Your task to perform on an android device: Open Wikipedia Image 0: 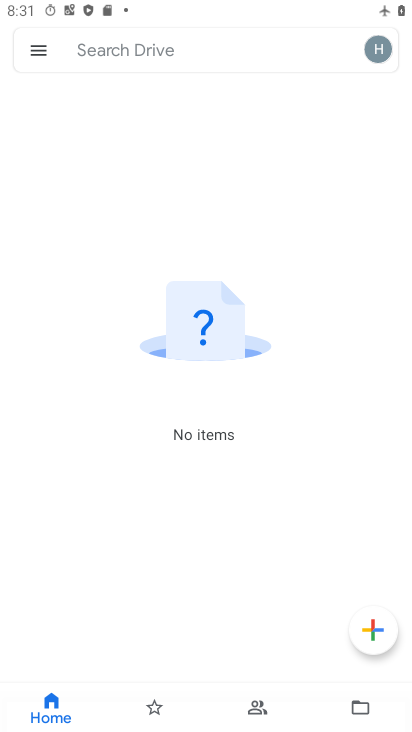
Step 0: press home button
Your task to perform on an android device: Open Wikipedia Image 1: 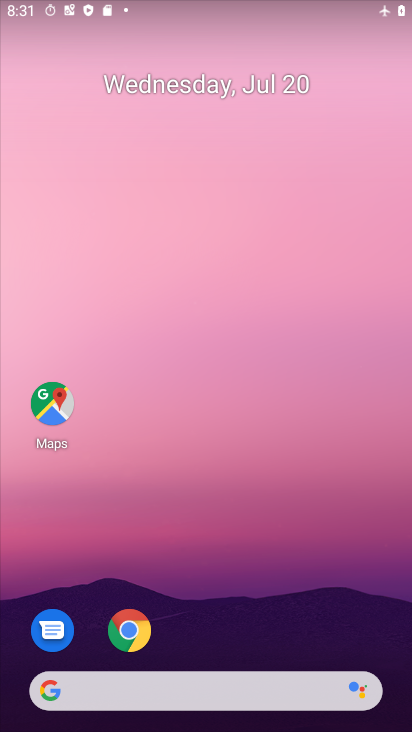
Step 1: drag from (263, 544) to (309, 219)
Your task to perform on an android device: Open Wikipedia Image 2: 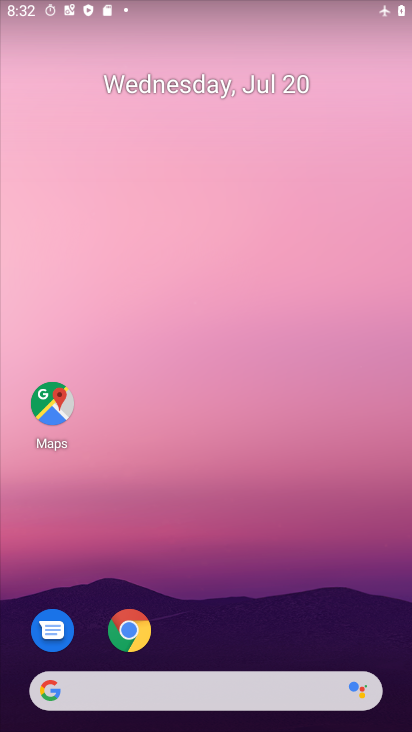
Step 2: drag from (261, 514) to (276, 212)
Your task to perform on an android device: Open Wikipedia Image 3: 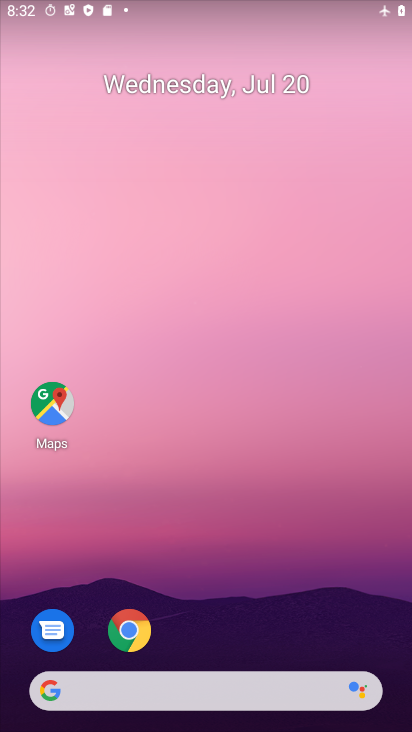
Step 3: drag from (208, 634) to (228, 262)
Your task to perform on an android device: Open Wikipedia Image 4: 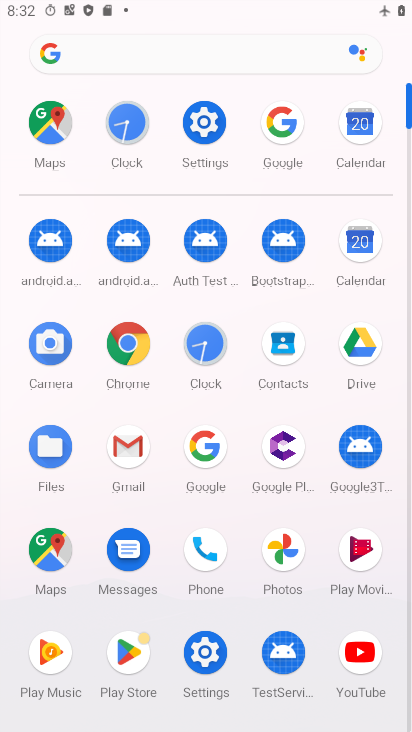
Step 4: click (132, 353)
Your task to perform on an android device: Open Wikipedia Image 5: 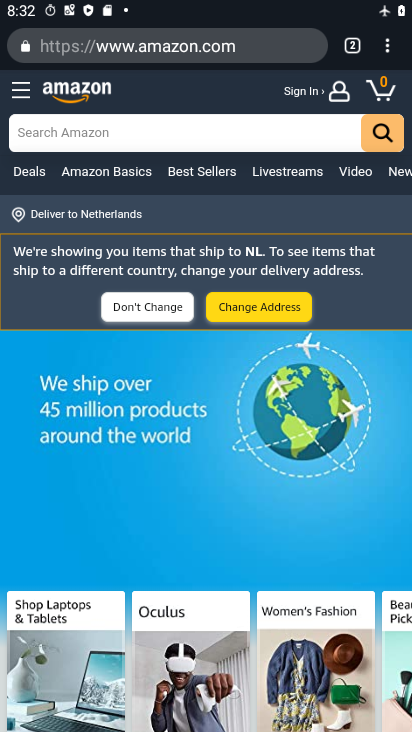
Step 5: click (232, 48)
Your task to perform on an android device: Open Wikipedia Image 6: 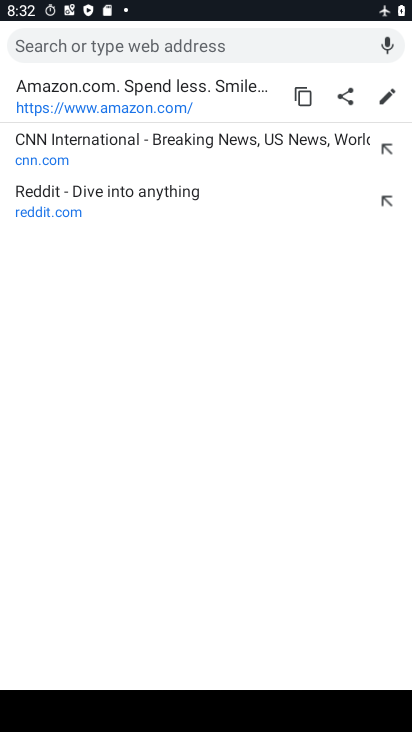
Step 6: type "wikipedia"
Your task to perform on an android device: Open Wikipedia Image 7: 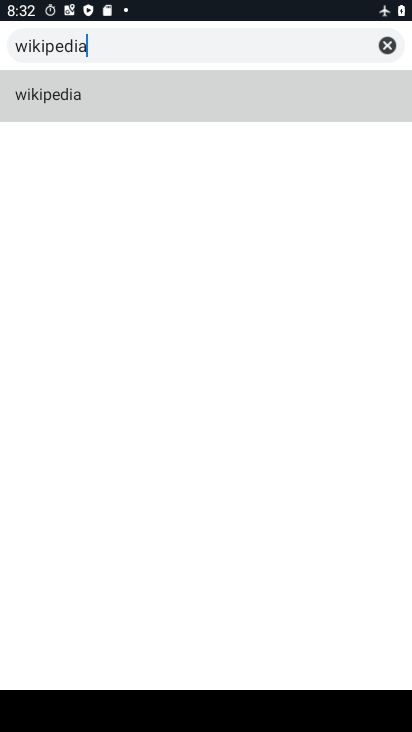
Step 7: click (310, 97)
Your task to perform on an android device: Open Wikipedia Image 8: 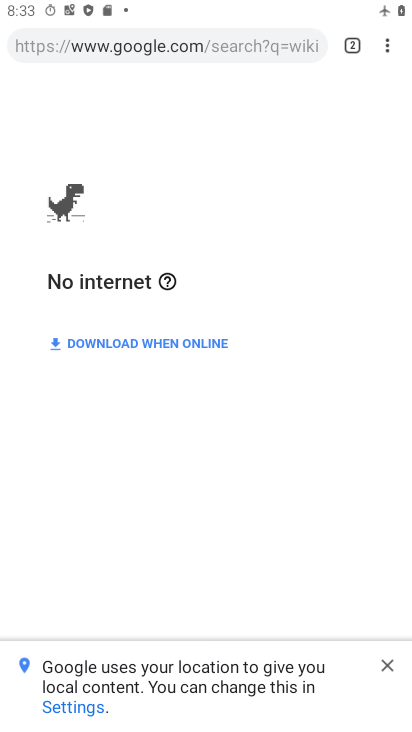
Step 8: task complete